Your task to perform on an android device: Open Yahoo.com Image 0: 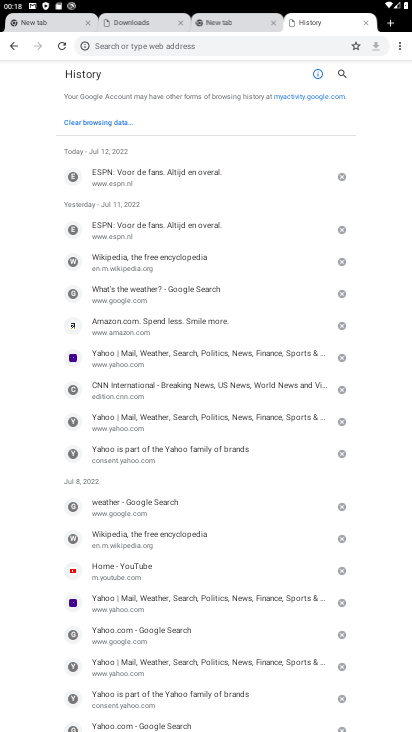
Step 0: press home button
Your task to perform on an android device: Open Yahoo.com Image 1: 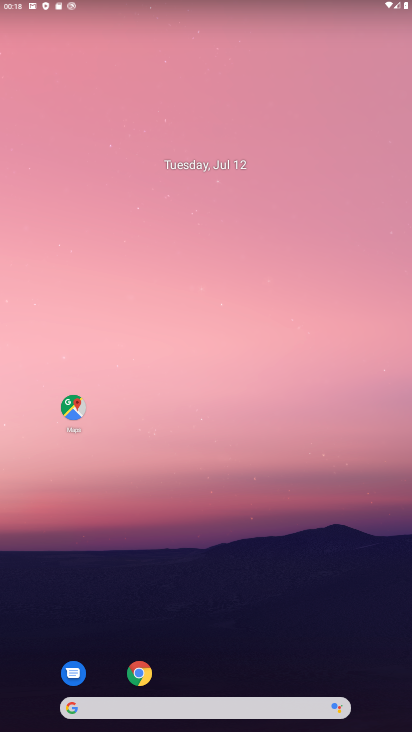
Step 1: click (186, 715)
Your task to perform on an android device: Open Yahoo.com Image 2: 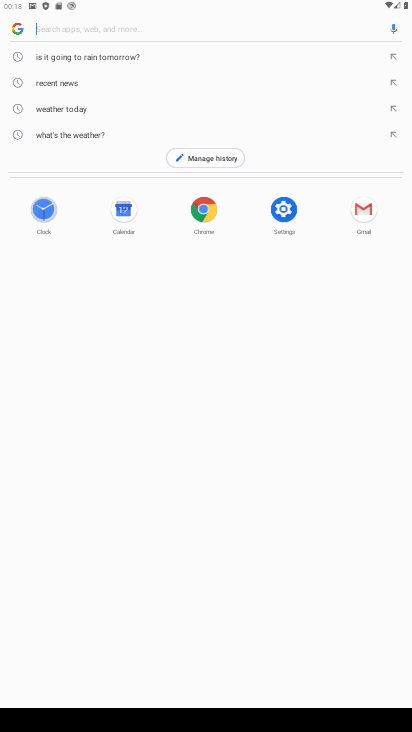
Step 2: type "Yahoo.com"
Your task to perform on an android device: Open Yahoo.com Image 3: 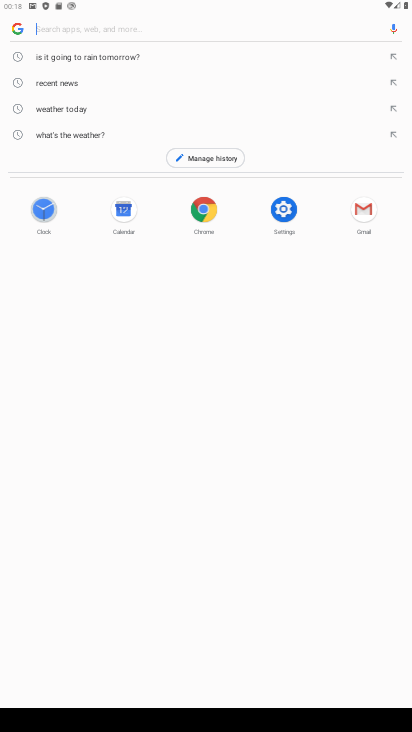
Step 3: click (57, 26)
Your task to perform on an android device: Open Yahoo.com Image 4: 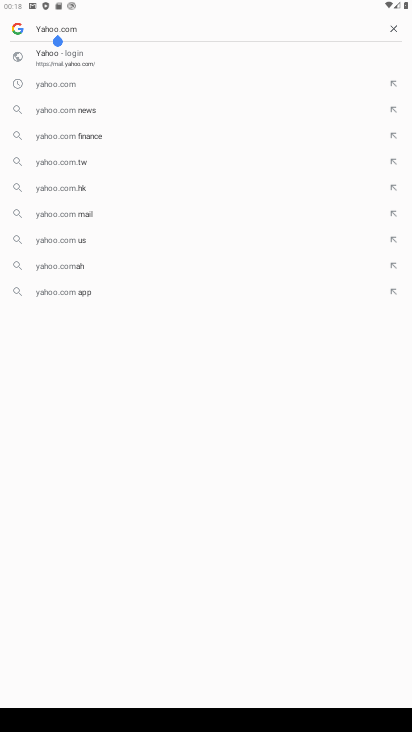
Step 4: click (66, 54)
Your task to perform on an android device: Open Yahoo.com Image 5: 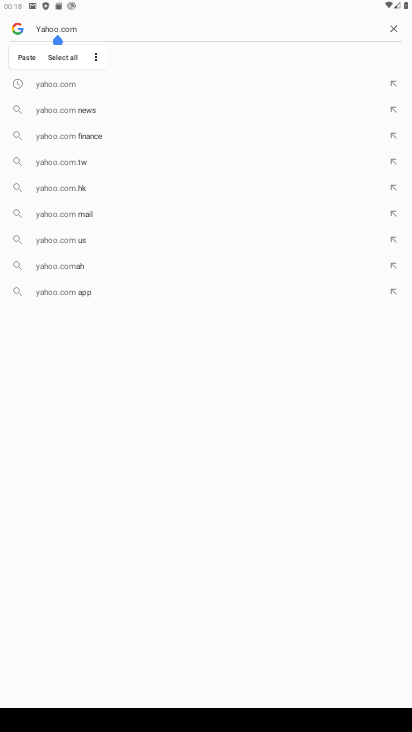
Step 5: click (51, 80)
Your task to perform on an android device: Open Yahoo.com Image 6: 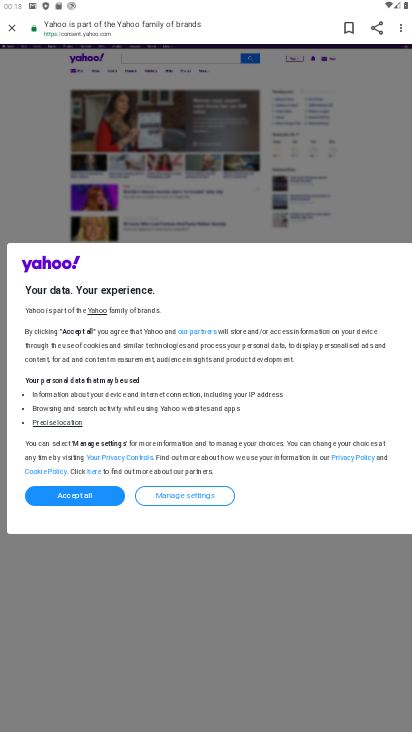
Step 6: click (82, 500)
Your task to perform on an android device: Open Yahoo.com Image 7: 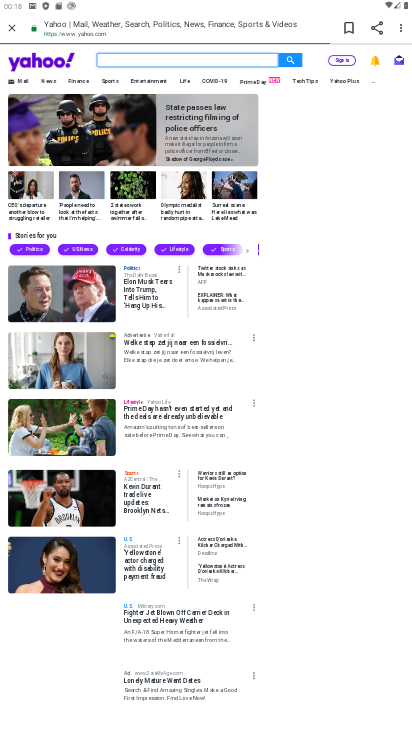
Step 7: task complete